Your task to perform on an android device: Add razer blackwidow to the cart on newegg Image 0: 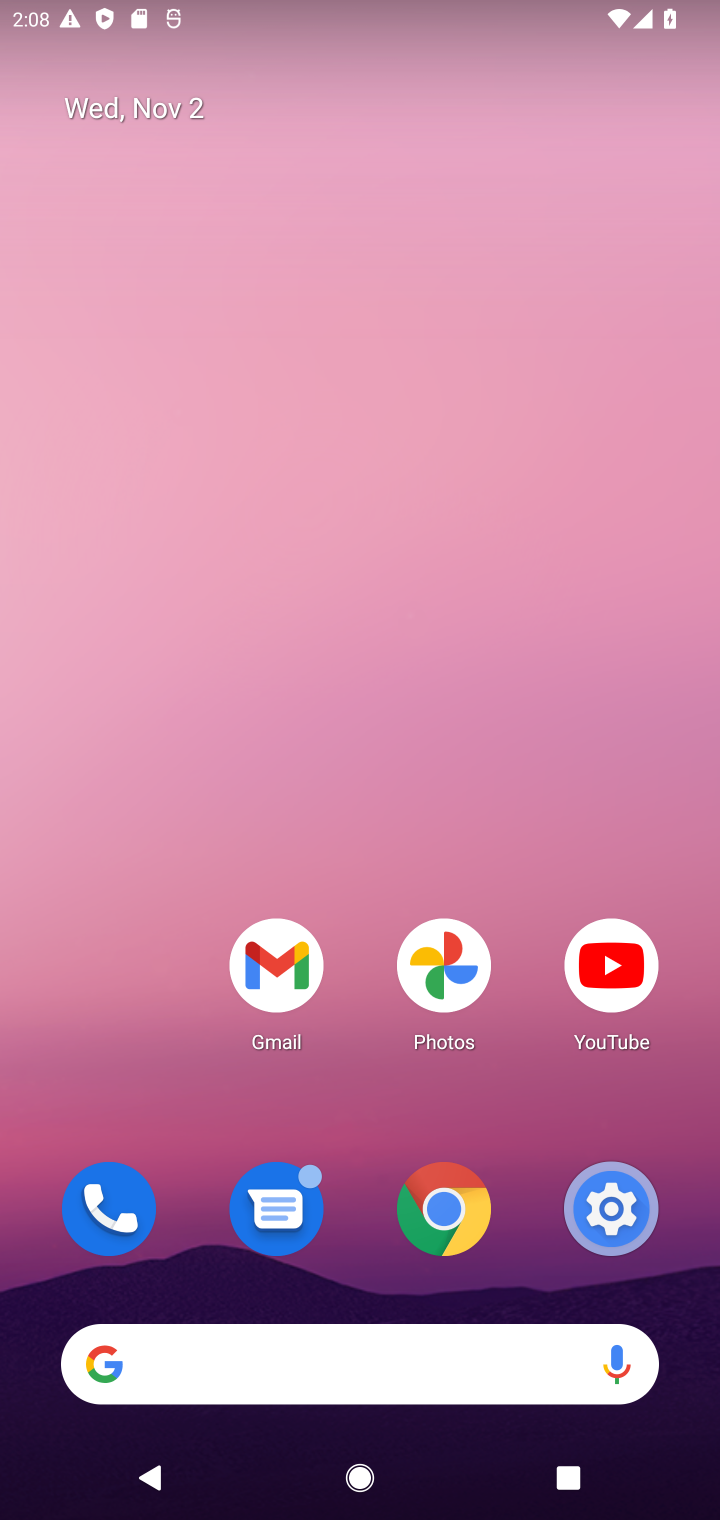
Step 0: click (398, 1352)
Your task to perform on an android device: Add razer blackwidow to the cart on newegg Image 1: 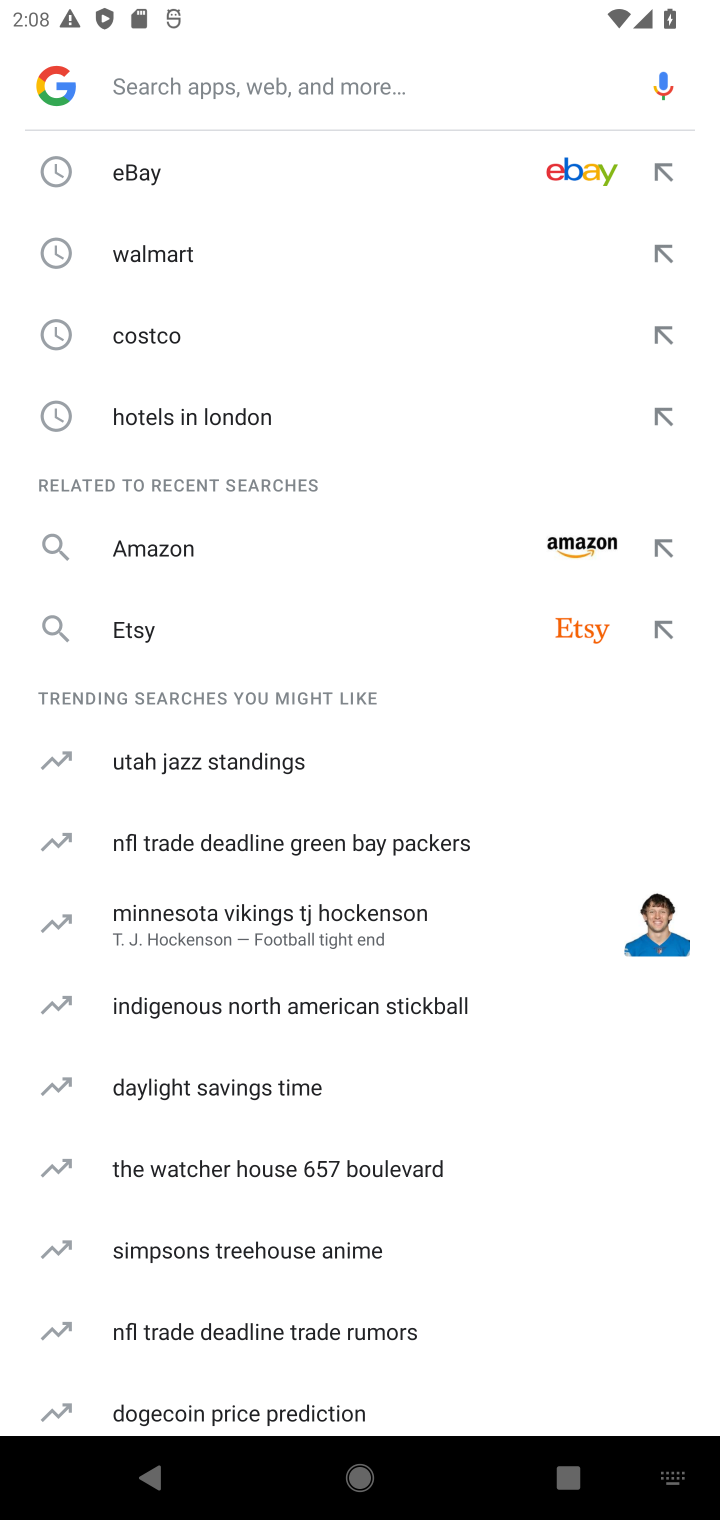
Step 1: type "newegg"
Your task to perform on an android device: Add razer blackwidow to the cart on newegg Image 2: 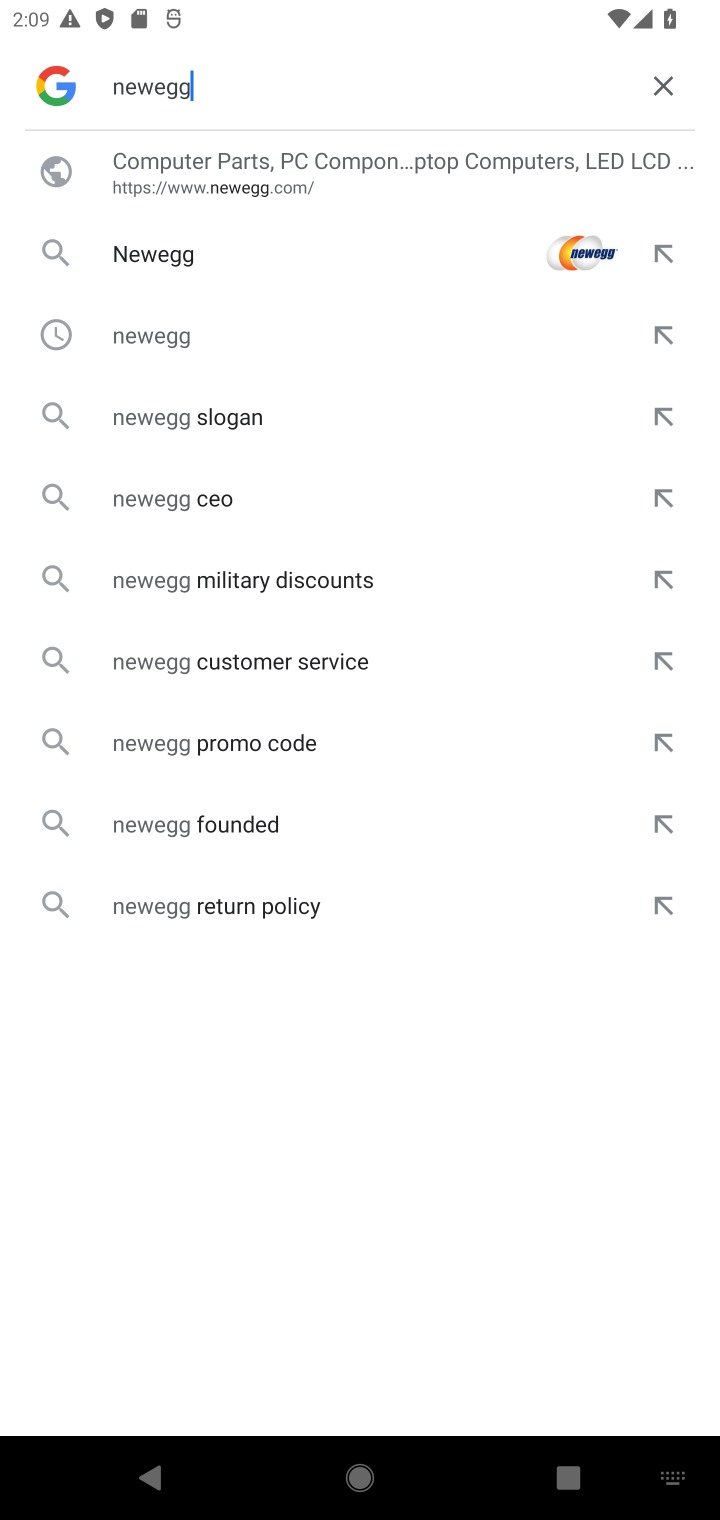
Step 2: click (164, 252)
Your task to perform on an android device: Add razer blackwidow to the cart on newegg Image 3: 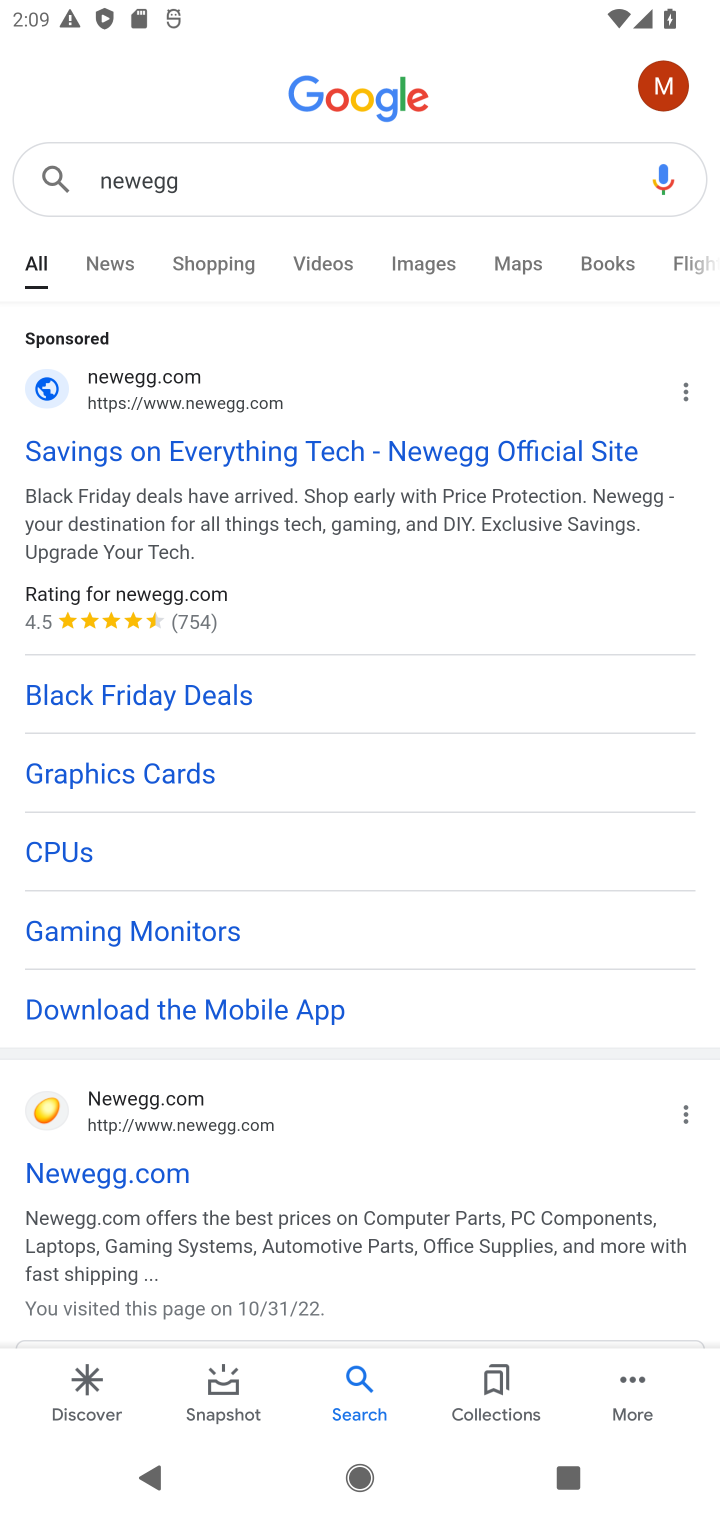
Step 3: click (134, 1180)
Your task to perform on an android device: Add razer blackwidow to the cart on newegg Image 4: 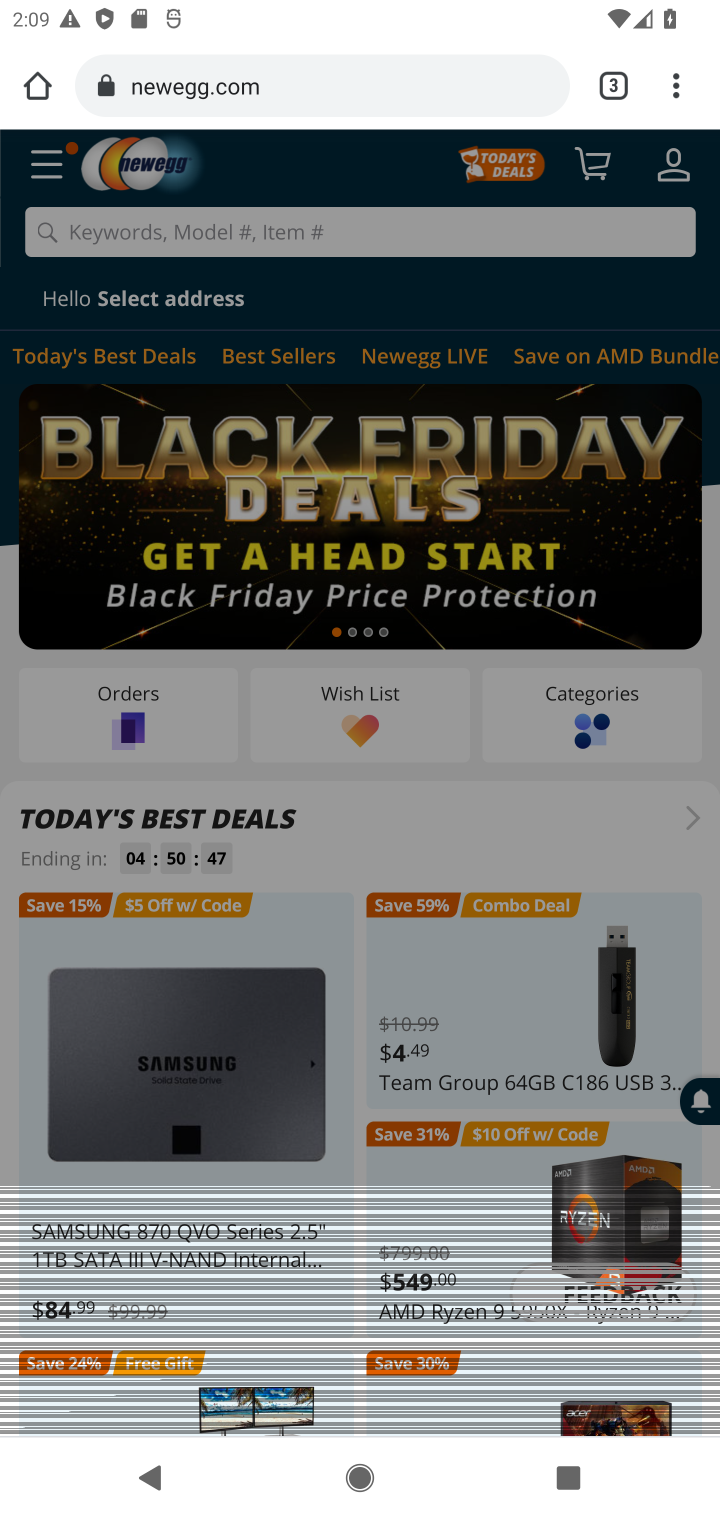
Step 4: click (231, 227)
Your task to perform on an android device: Add razer blackwidow to the cart on newegg Image 5: 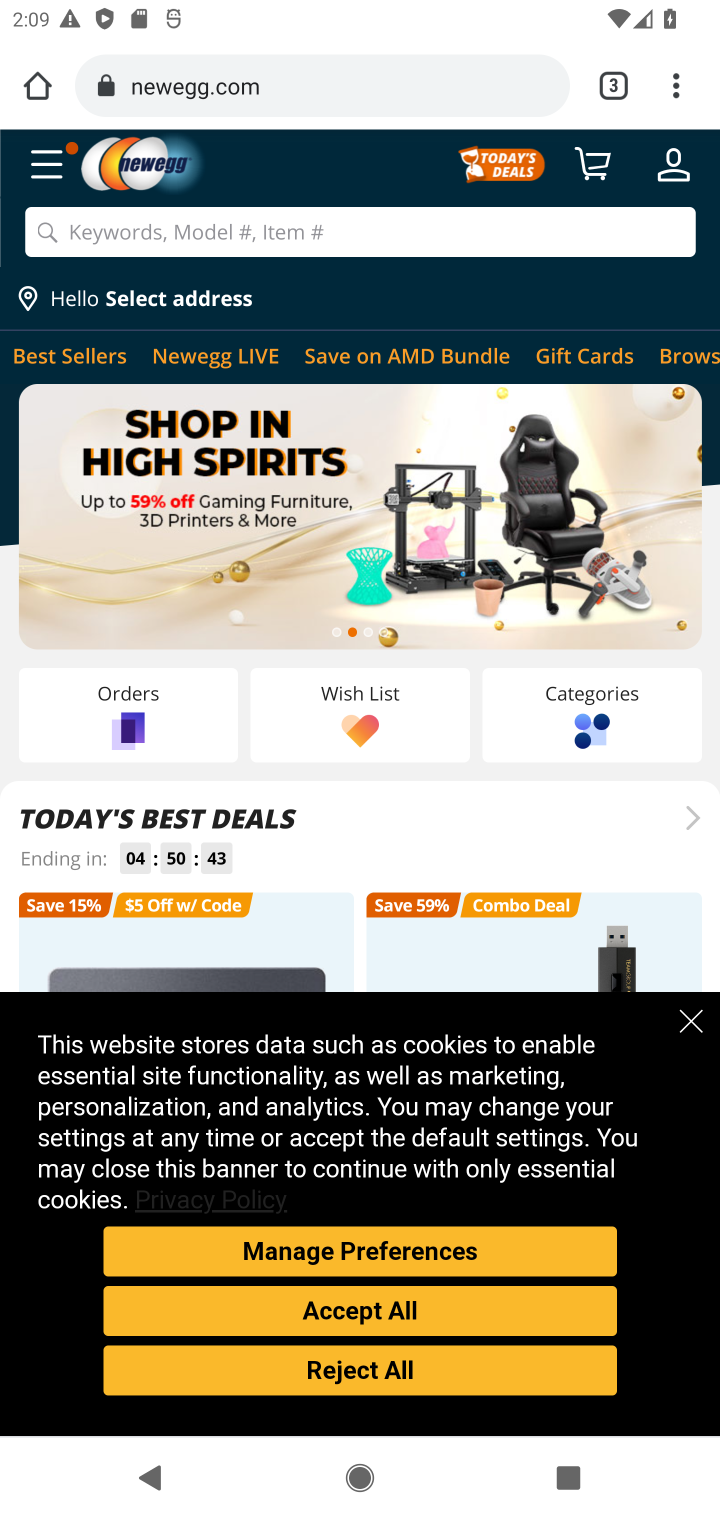
Step 5: click (333, 243)
Your task to perform on an android device: Add razer blackwidow to the cart on newegg Image 6: 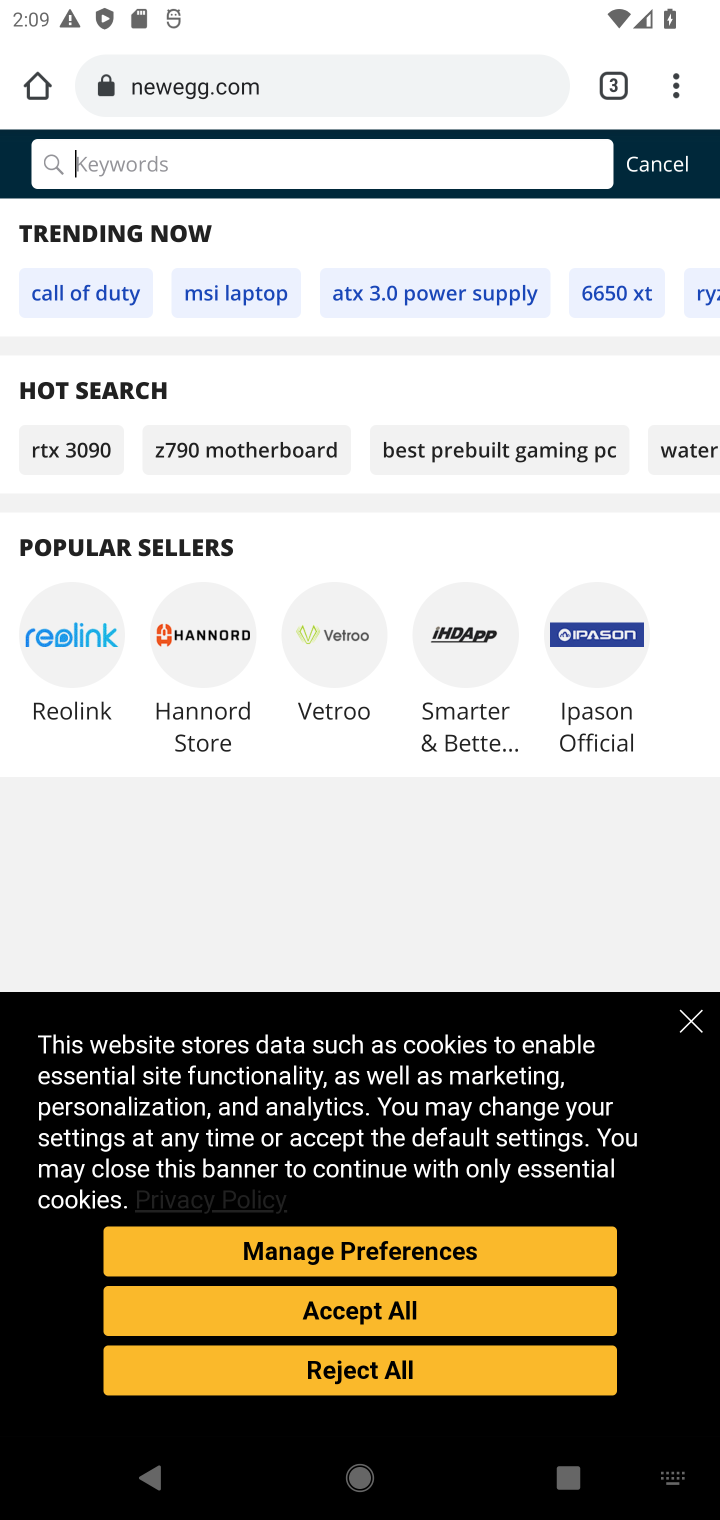
Step 6: type "razer blackwidow"
Your task to perform on an android device: Add razer blackwidow to the cart on newegg Image 7: 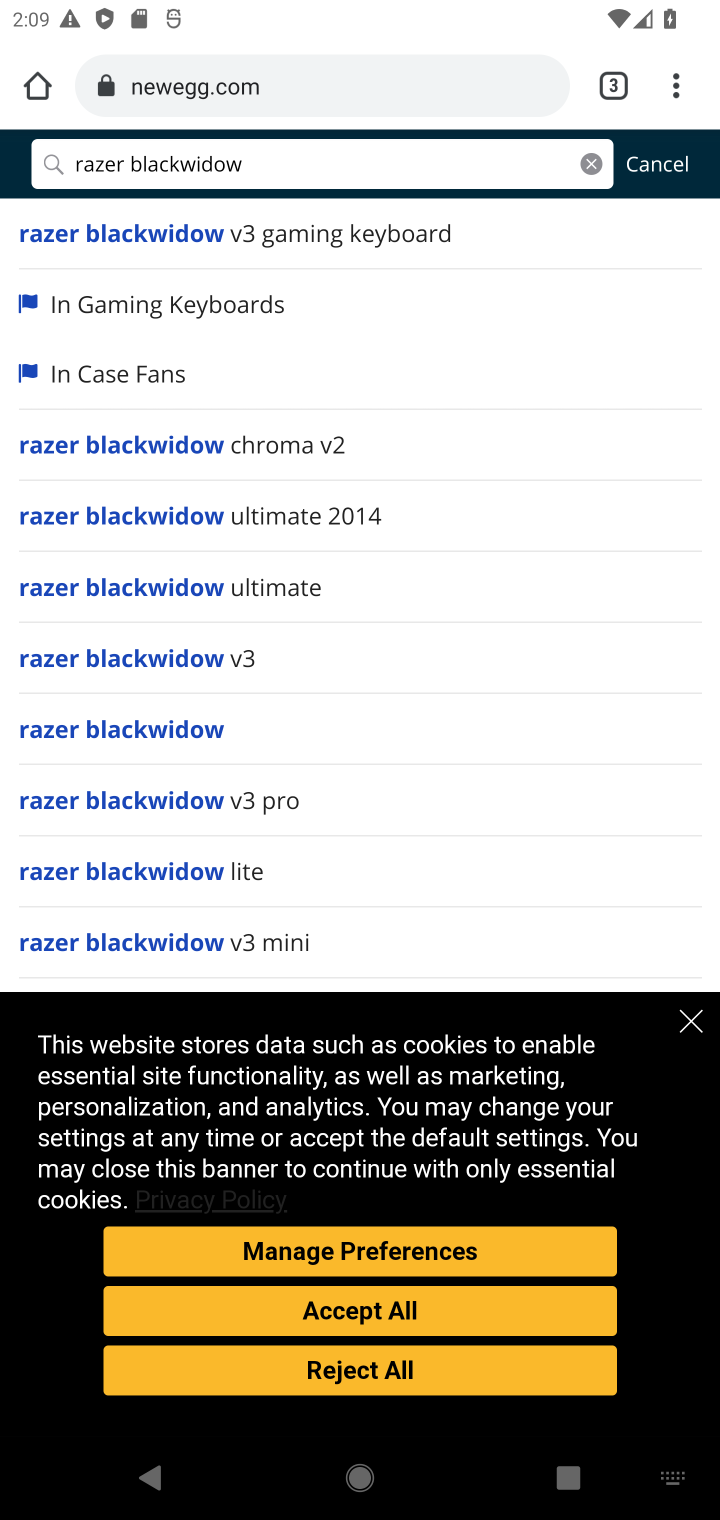
Step 7: click (197, 721)
Your task to perform on an android device: Add razer blackwidow to the cart on newegg Image 8: 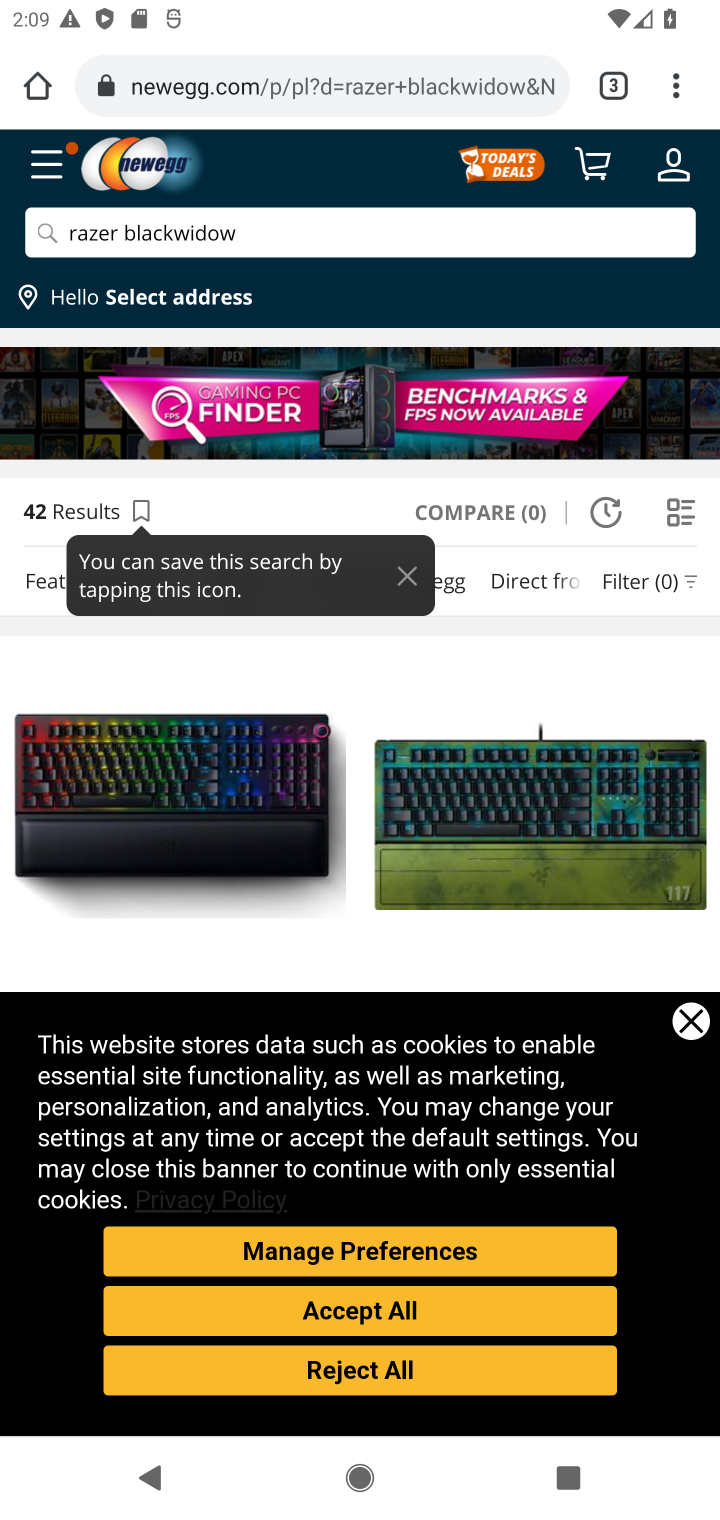
Step 8: click (342, 1307)
Your task to perform on an android device: Add razer blackwidow to the cart on newegg Image 9: 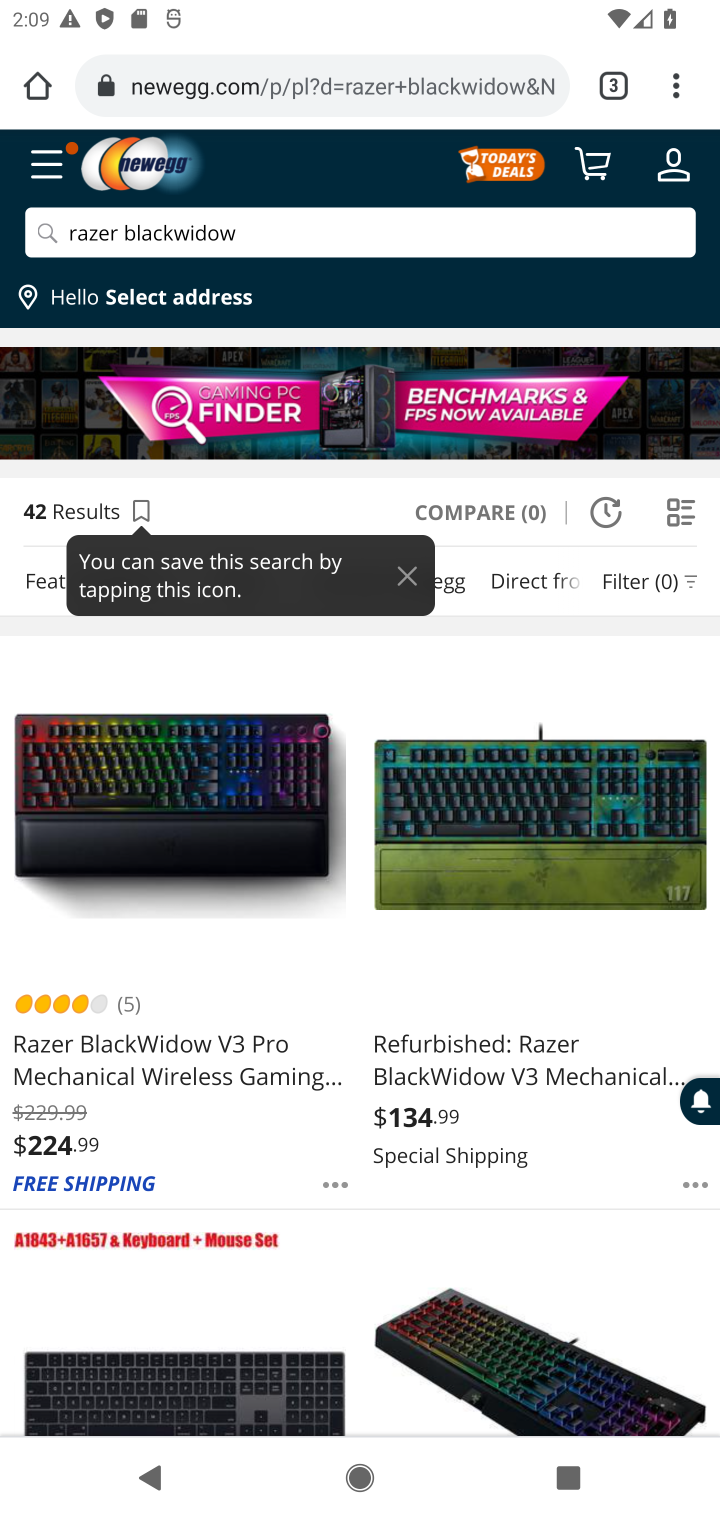
Step 9: click (201, 1023)
Your task to perform on an android device: Add razer blackwidow to the cart on newegg Image 10: 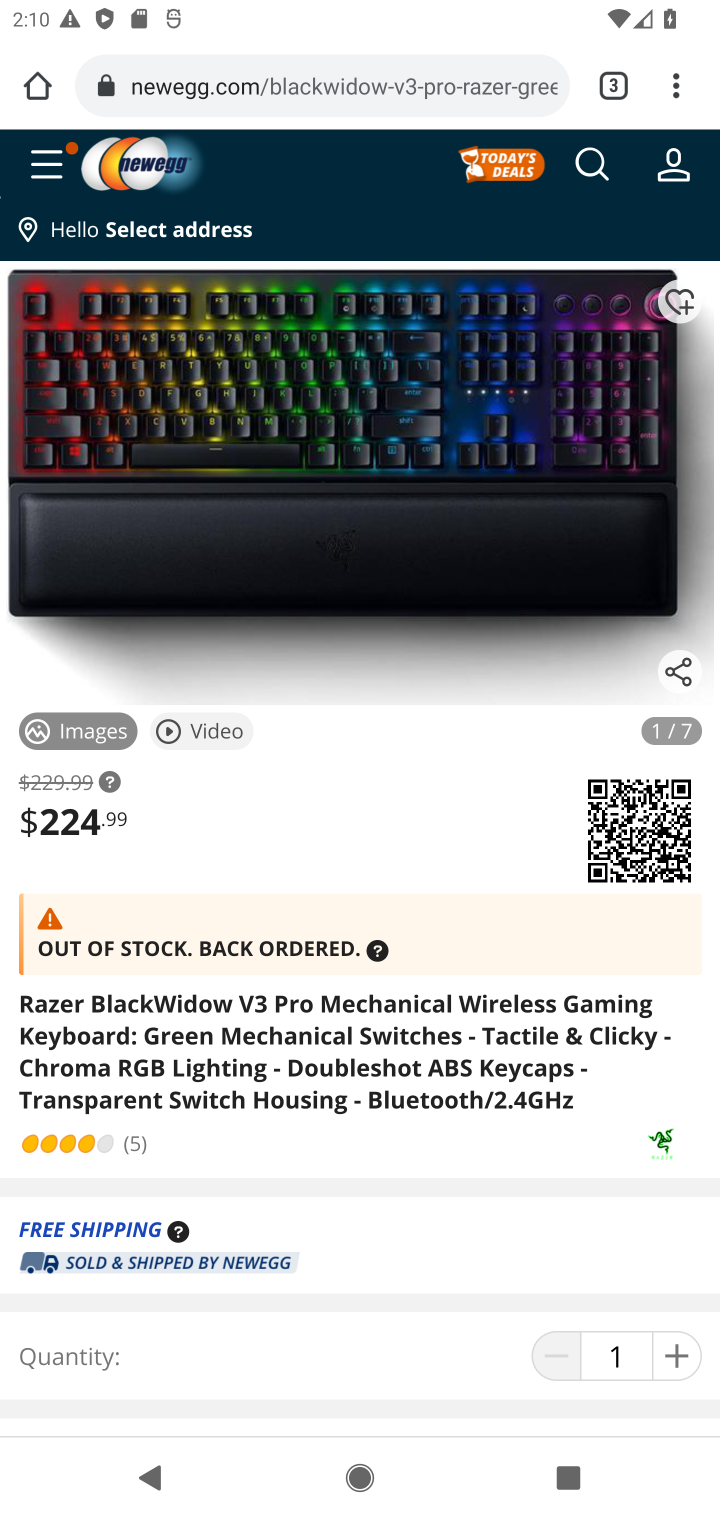
Step 10: drag from (407, 1156) to (339, 701)
Your task to perform on an android device: Add razer blackwidow to the cart on newegg Image 11: 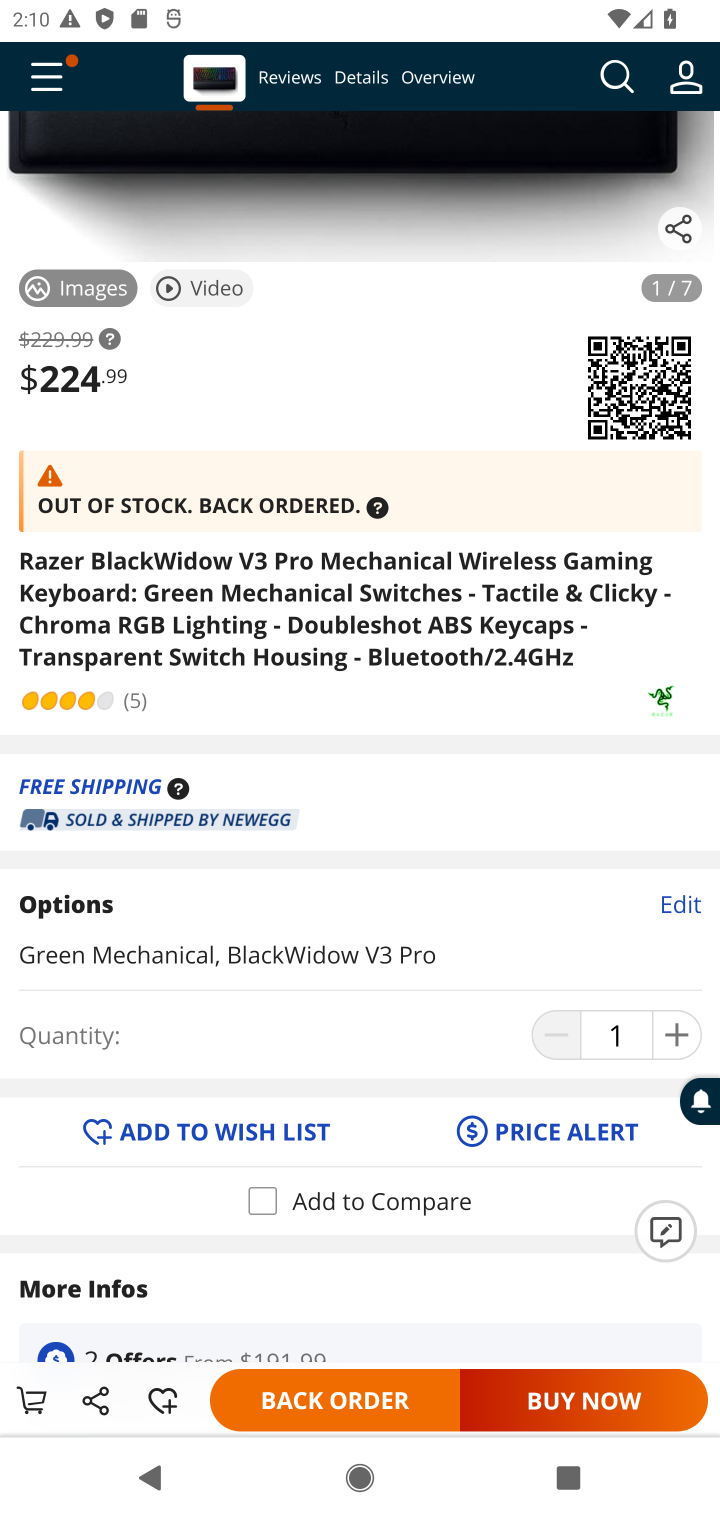
Step 11: drag from (380, 897) to (335, 487)
Your task to perform on an android device: Add razer blackwidow to the cart on newegg Image 12: 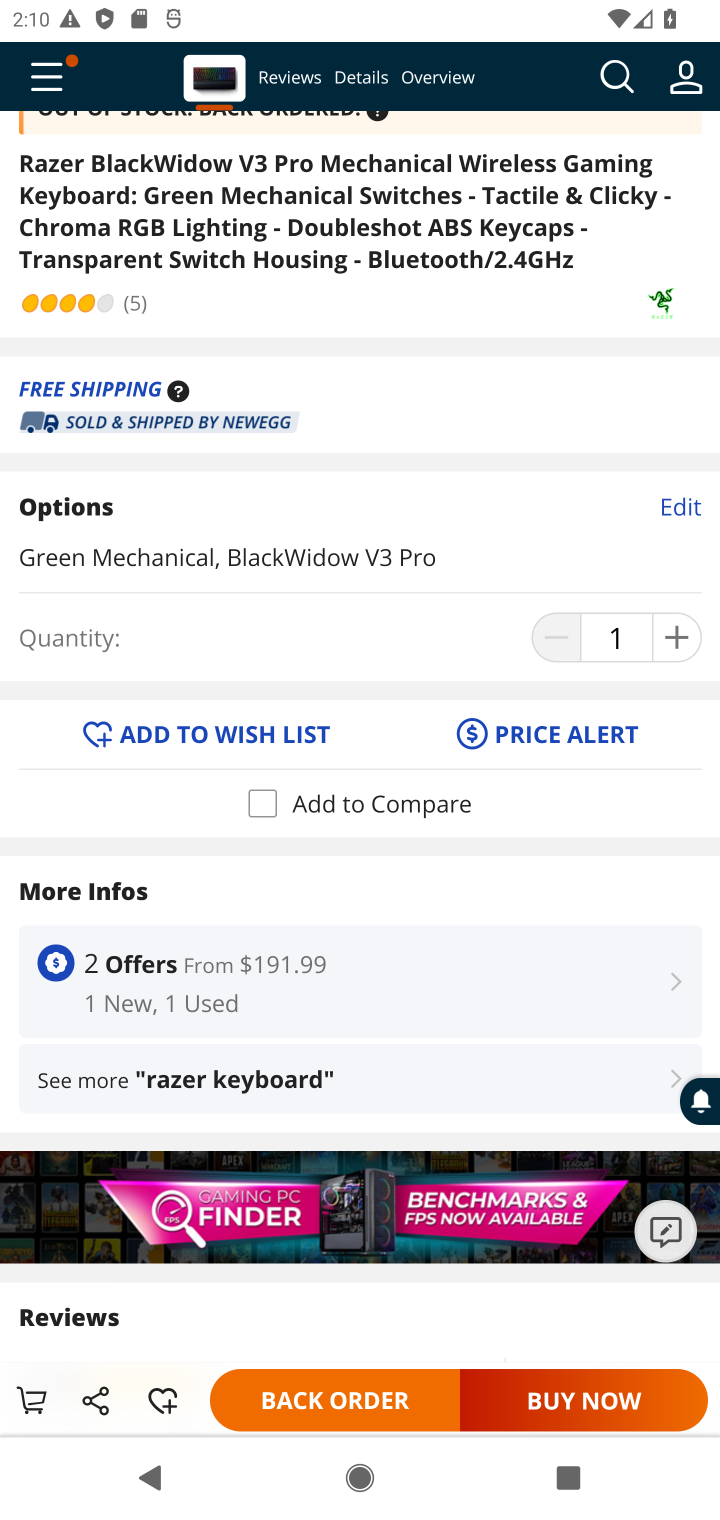
Step 12: click (235, 731)
Your task to perform on an android device: Add razer blackwidow to the cart on newegg Image 13: 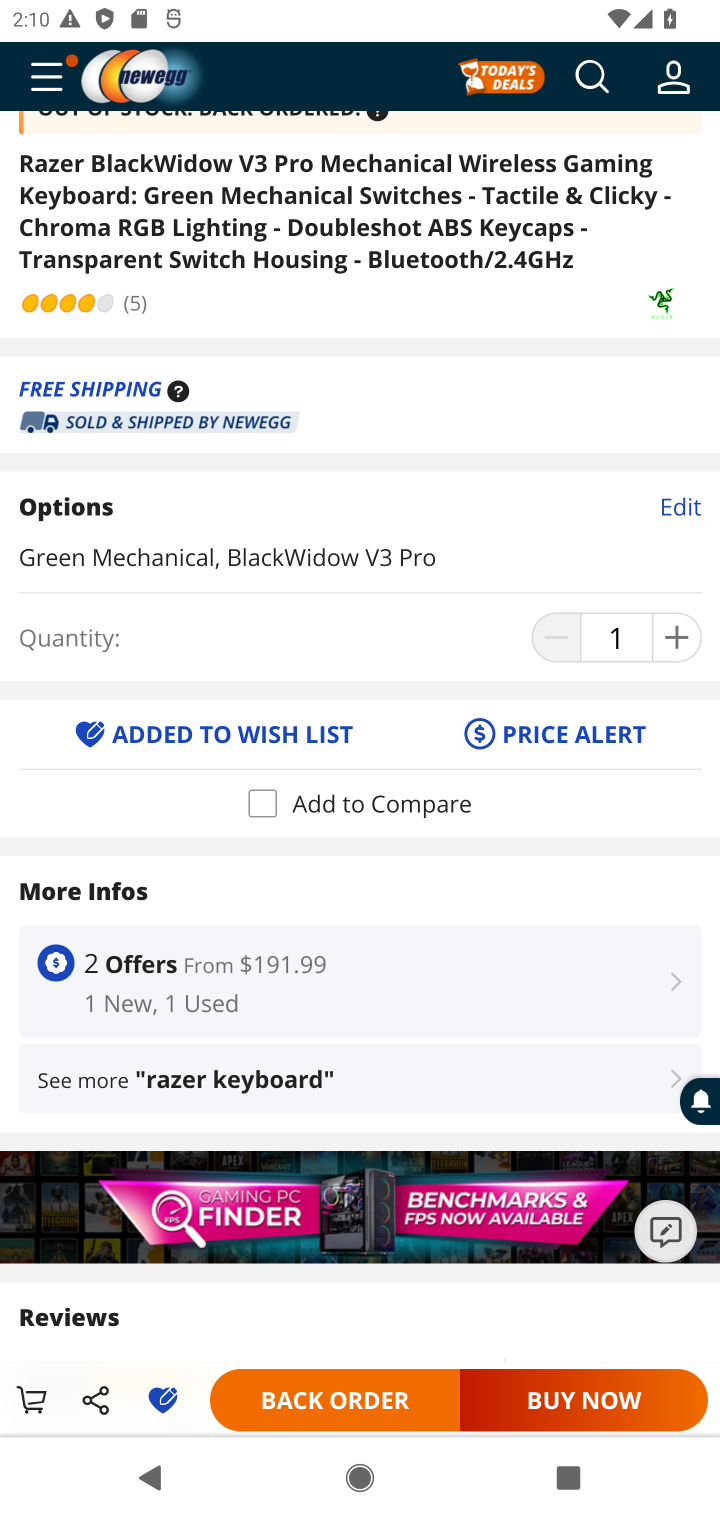
Step 13: task complete